Your task to perform on an android device: toggle notifications settings in the gmail app Image 0: 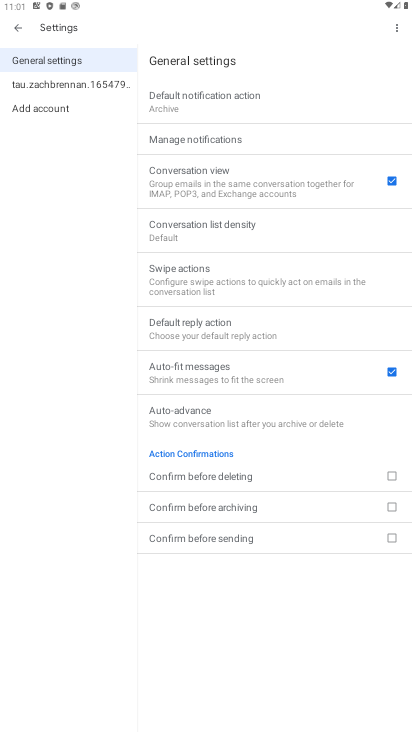
Step 0: press home button
Your task to perform on an android device: toggle notifications settings in the gmail app Image 1: 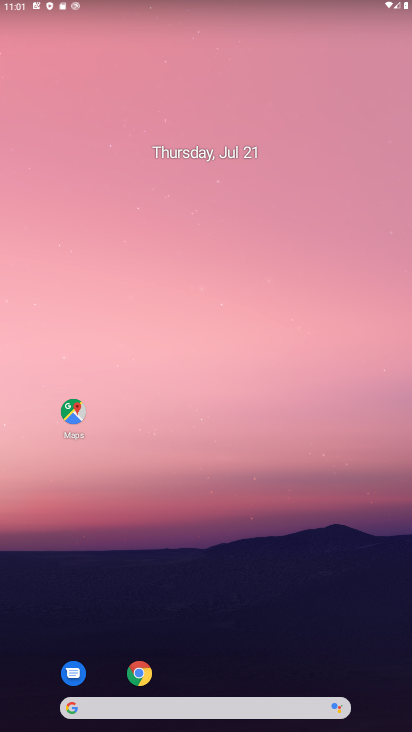
Step 1: drag from (199, 639) to (182, 272)
Your task to perform on an android device: toggle notifications settings in the gmail app Image 2: 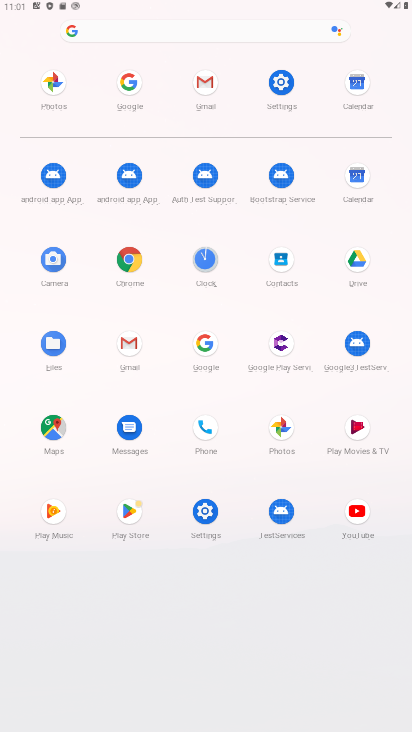
Step 2: click (199, 104)
Your task to perform on an android device: toggle notifications settings in the gmail app Image 3: 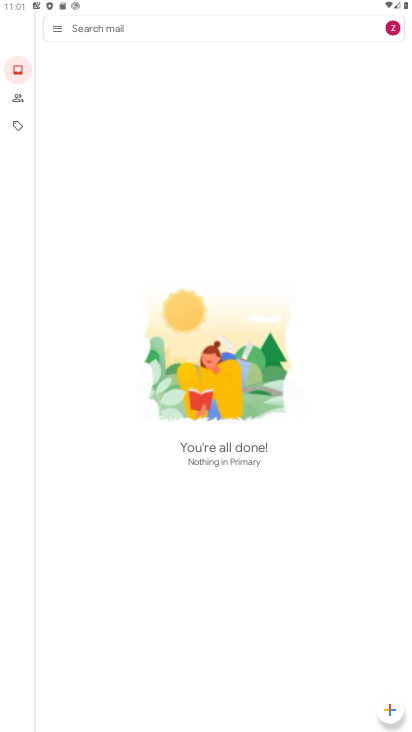
Step 3: click (73, 47)
Your task to perform on an android device: toggle notifications settings in the gmail app Image 4: 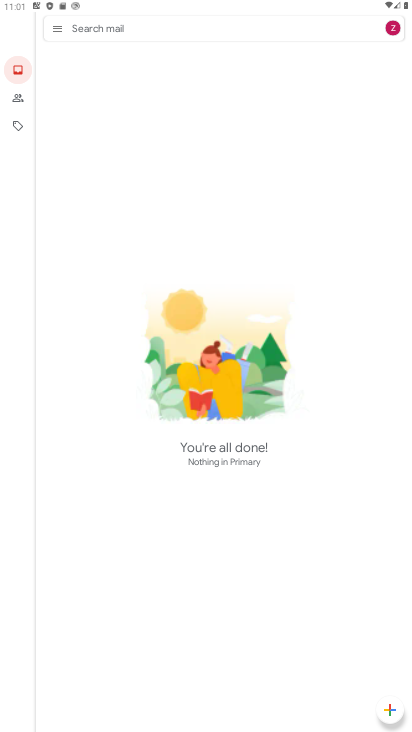
Step 4: click (54, 35)
Your task to perform on an android device: toggle notifications settings in the gmail app Image 5: 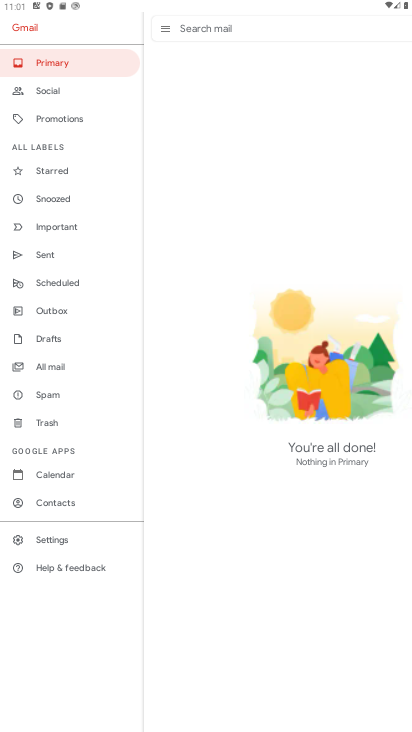
Step 5: click (83, 543)
Your task to perform on an android device: toggle notifications settings in the gmail app Image 6: 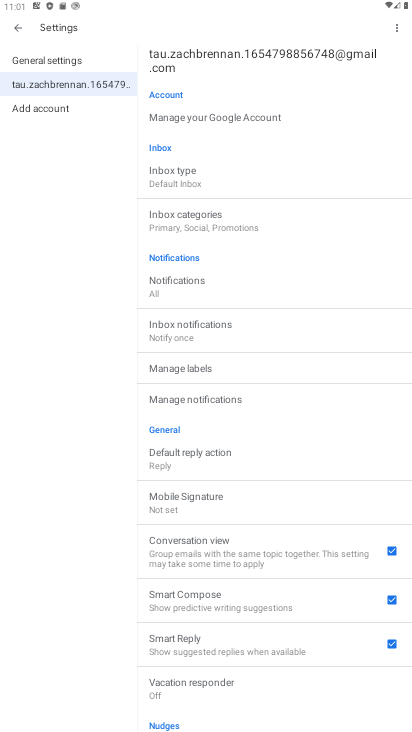
Step 6: click (270, 404)
Your task to perform on an android device: toggle notifications settings in the gmail app Image 7: 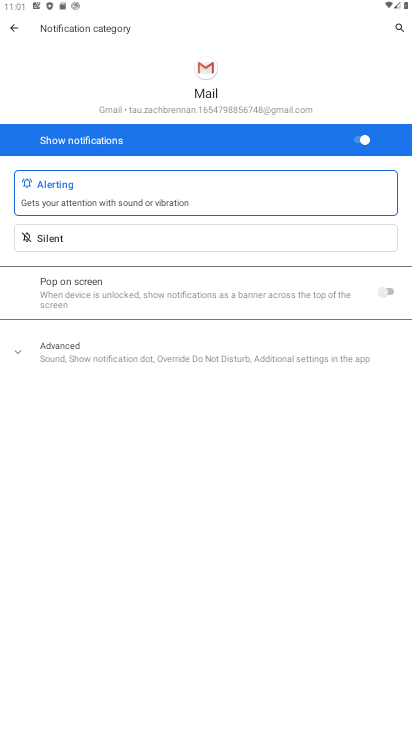
Step 7: click (360, 141)
Your task to perform on an android device: toggle notifications settings in the gmail app Image 8: 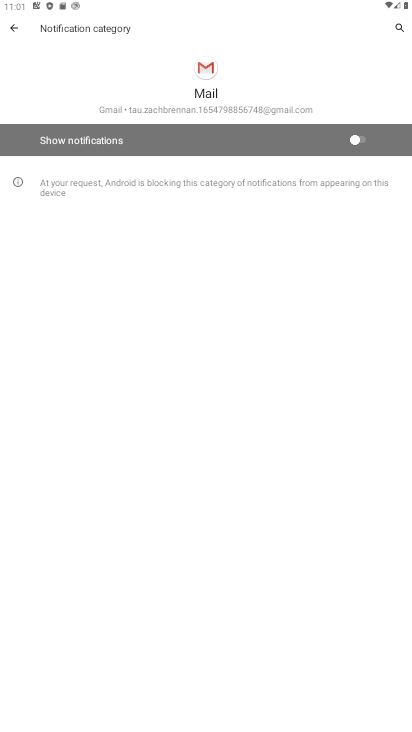
Step 8: task complete